Your task to perform on an android device: Go to privacy settings Image 0: 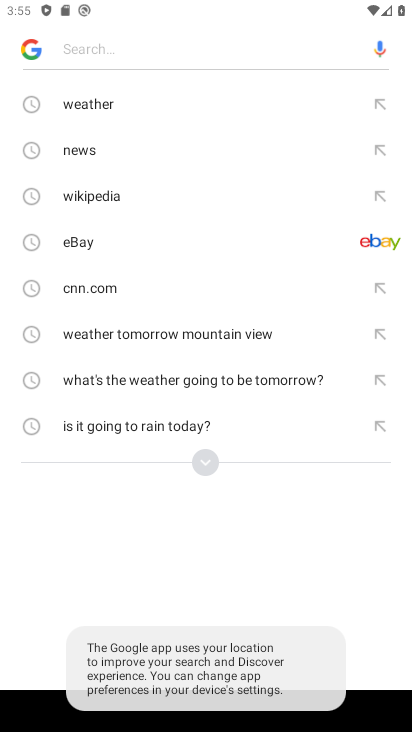
Step 0: press back button
Your task to perform on an android device: Go to privacy settings Image 1: 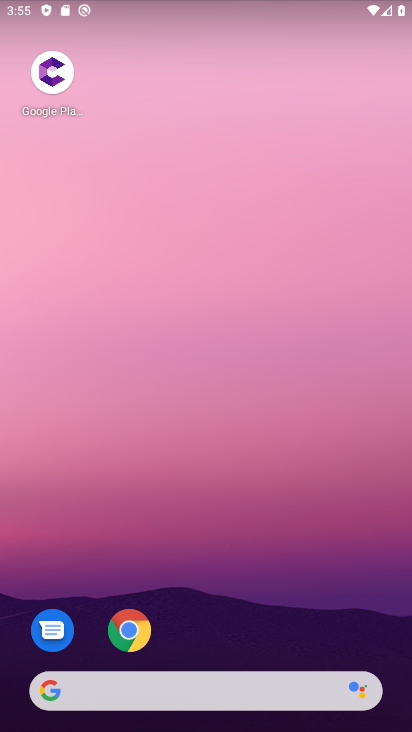
Step 1: drag from (212, 532) to (254, 47)
Your task to perform on an android device: Go to privacy settings Image 2: 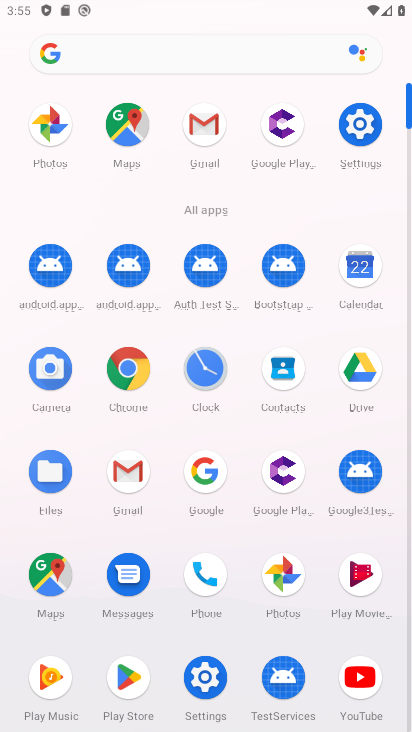
Step 2: click (352, 131)
Your task to perform on an android device: Go to privacy settings Image 3: 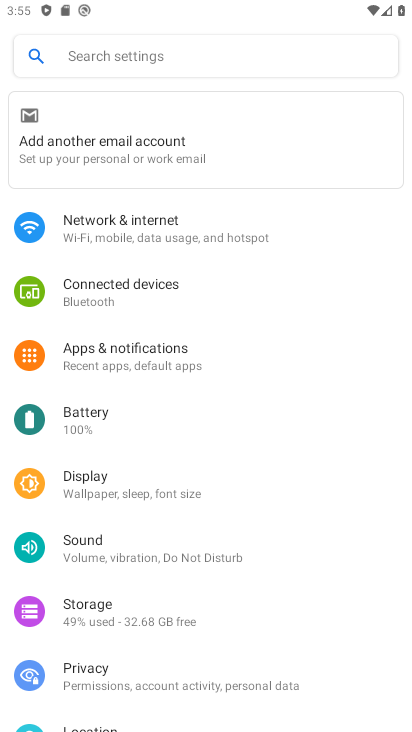
Step 3: click (118, 687)
Your task to perform on an android device: Go to privacy settings Image 4: 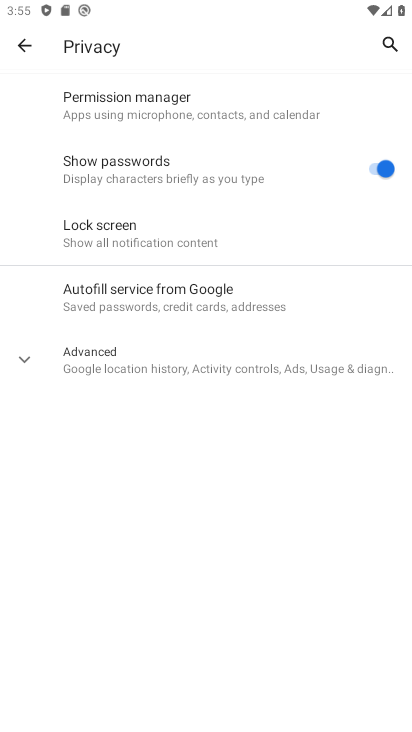
Step 4: task complete